Your task to perform on an android device: change alarm snooze length Image 0: 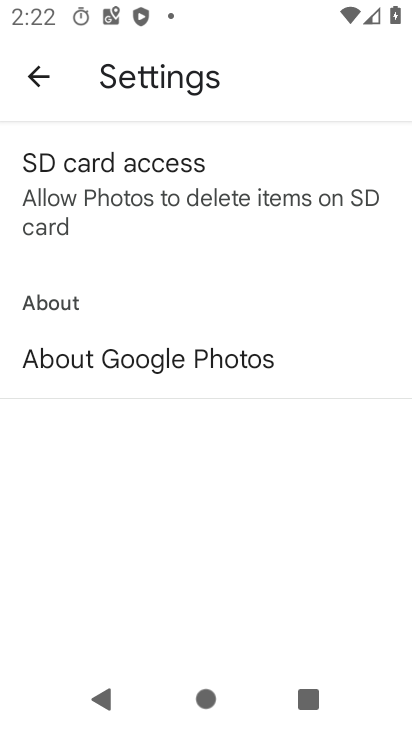
Step 0: press home button
Your task to perform on an android device: change alarm snooze length Image 1: 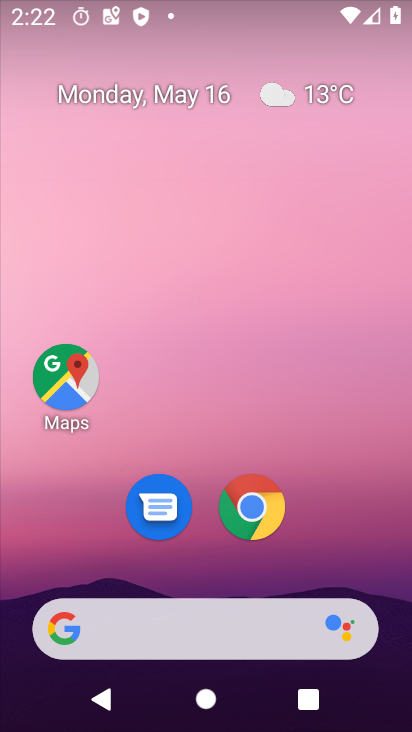
Step 1: drag from (377, 570) to (368, 224)
Your task to perform on an android device: change alarm snooze length Image 2: 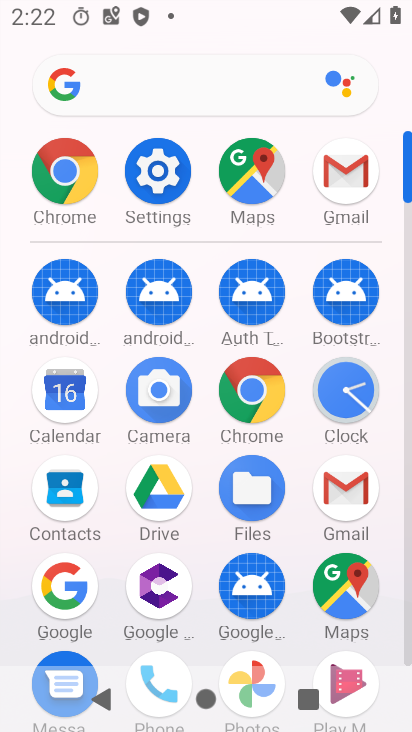
Step 2: click (364, 399)
Your task to perform on an android device: change alarm snooze length Image 3: 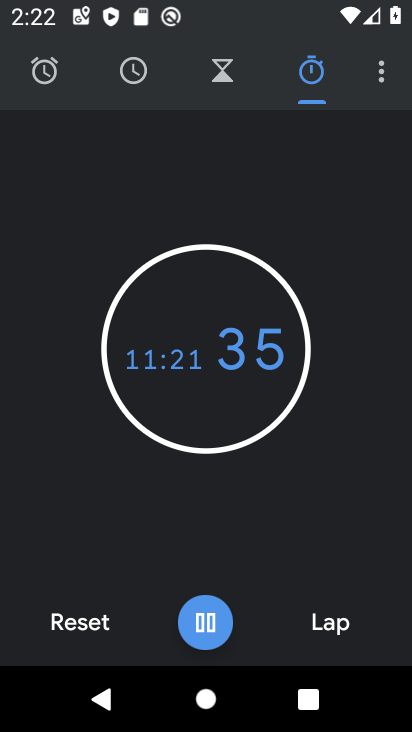
Step 3: click (382, 84)
Your task to perform on an android device: change alarm snooze length Image 4: 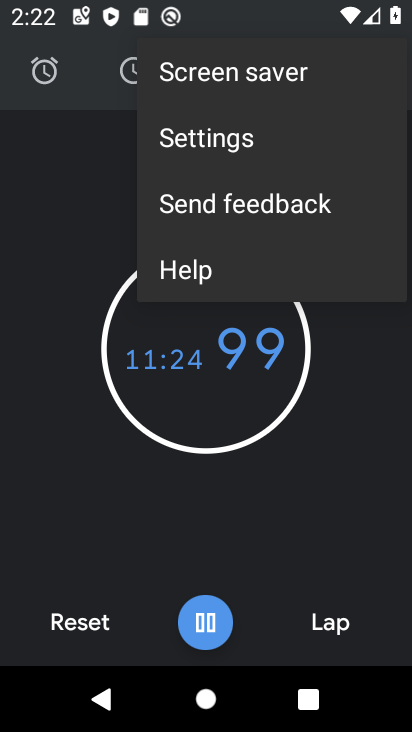
Step 4: click (233, 145)
Your task to perform on an android device: change alarm snooze length Image 5: 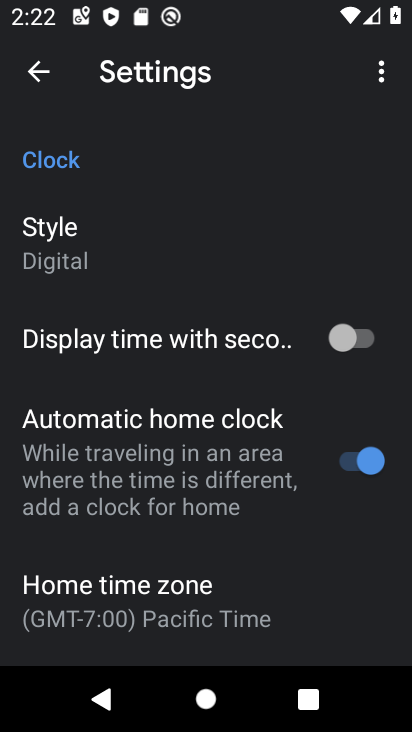
Step 5: drag from (316, 580) to (317, 449)
Your task to perform on an android device: change alarm snooze length Image 6: 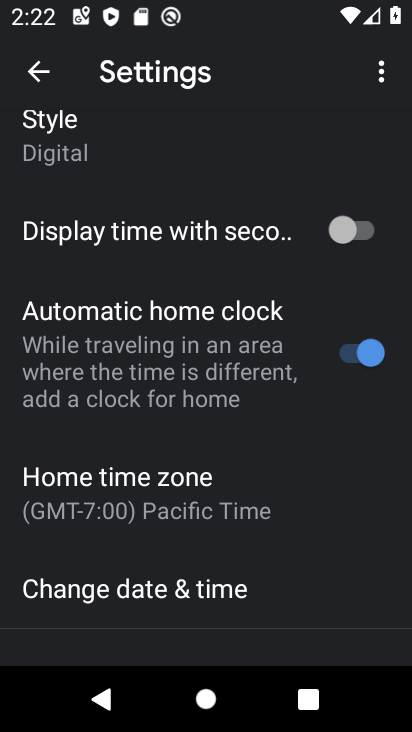
Step 6: drag from (312, 595) to (313, 439)
Your task to perform on an android device: change alarm snooze length Image 7: 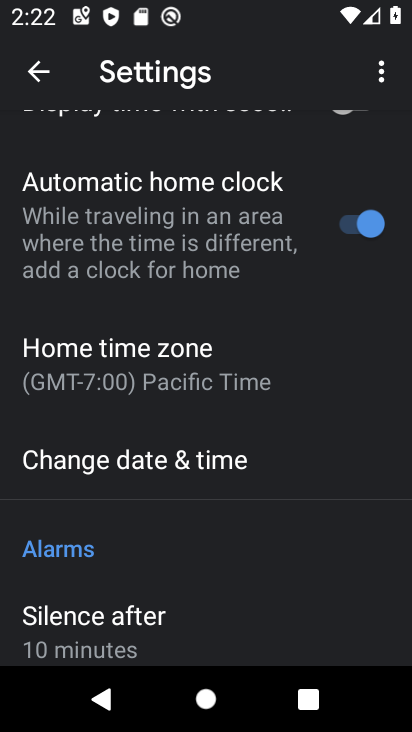
Step 7: drag from (304, 606) to (312, 476)
Your task to perform on an android device: change alarm snooze length Image 8: 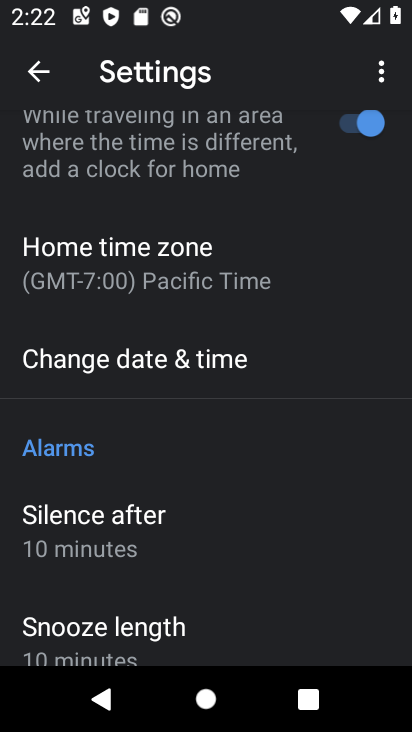
Step 8: drag from (297, 616) to (301, 490)
Your task to perform on an android device: change alarm snooze length Image 9: 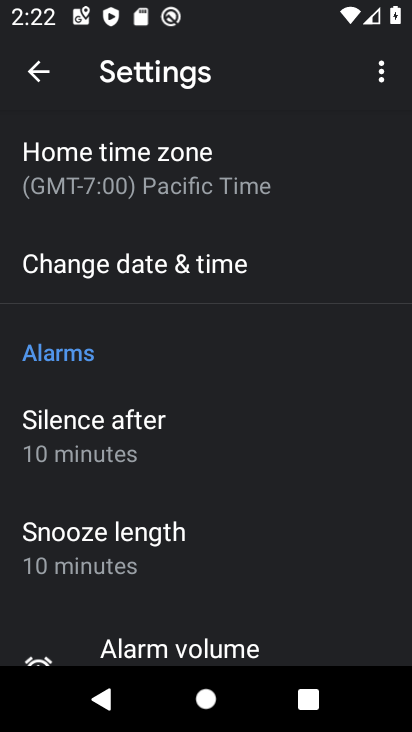
Step 9: drag from (327, 617) to (326, 523)
Your task to perform on an android device: change alarm snooze length Image 10: 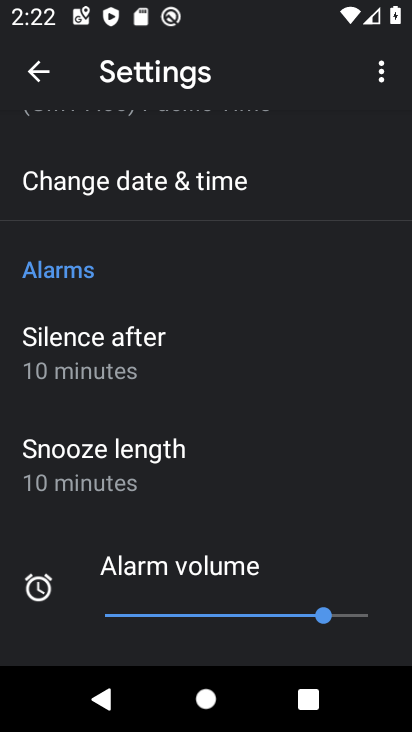
Step 10: click (147, 476)
Your task to perform on an android device: change alarm snooze length Image 11: 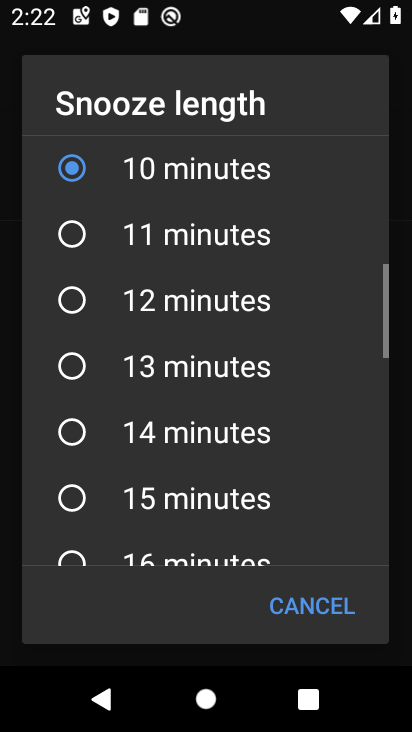
Step 11: click (169, 449)
Your task to perform on an android device: change alarm snooze length Image 12: 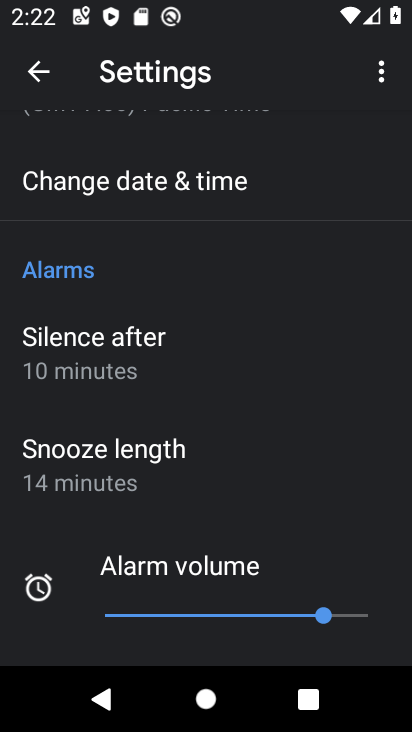
Step 12: task complete